Your task to perform on an android device: Find coffee shops on Maps Image 0: 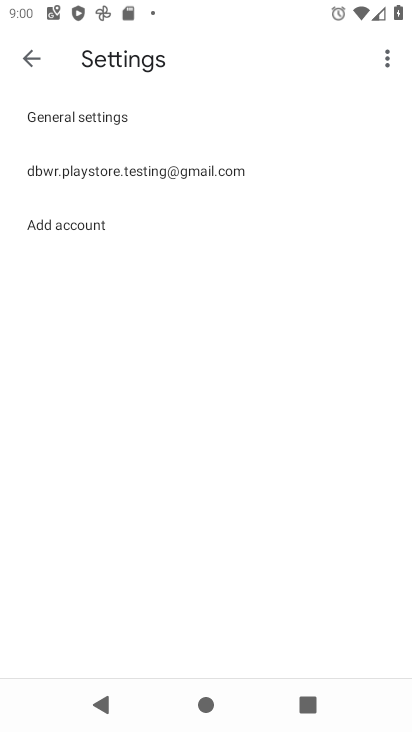
Step 0: press home button
Your task to perform on an android device: Find coffee shops on Maps Image 1: 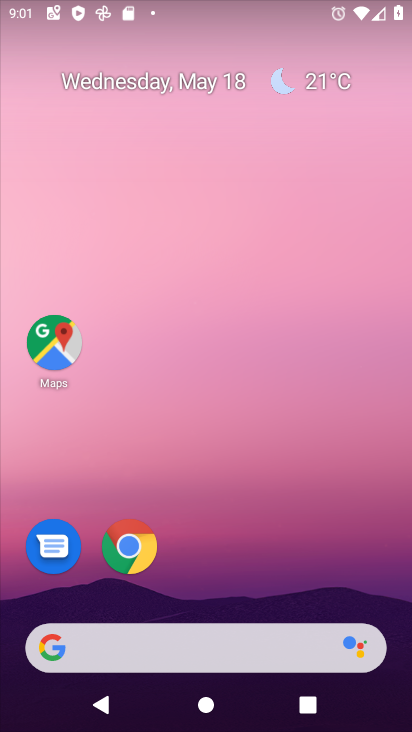
Step 1: click (69, 338)
Your task to perform on an android device: Find coffee shops on Maps Image 2: 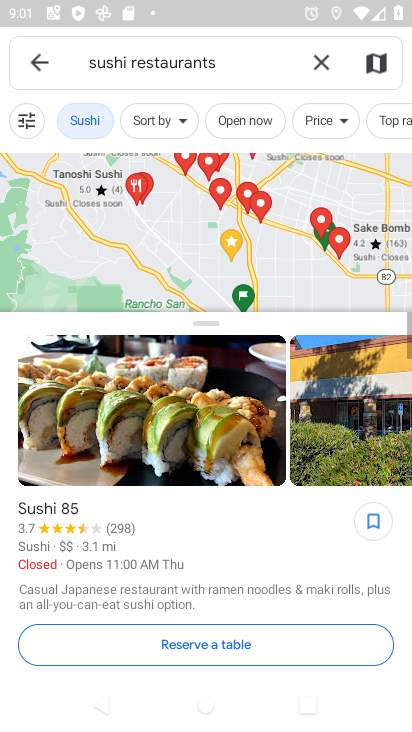
Step 2: click (316, 68)
Your task to perform on an android device: Find coffee shops on Maps Image 3: 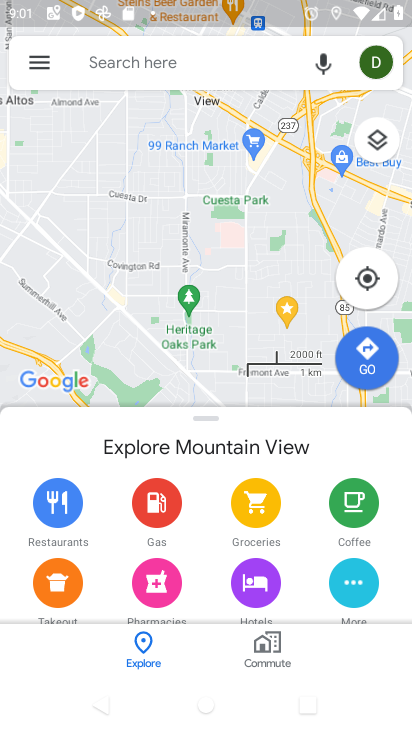
Step 3: click (154, 51)
Your task to perform on an android device: Find coffee shops on Maps Image 4: 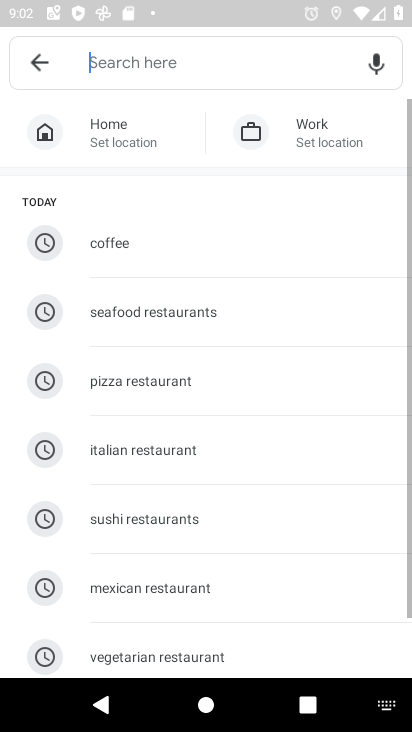
Step 4: click (182, 265)
Your task to perform on an android device: Find coffee shops on Maps Image 5: 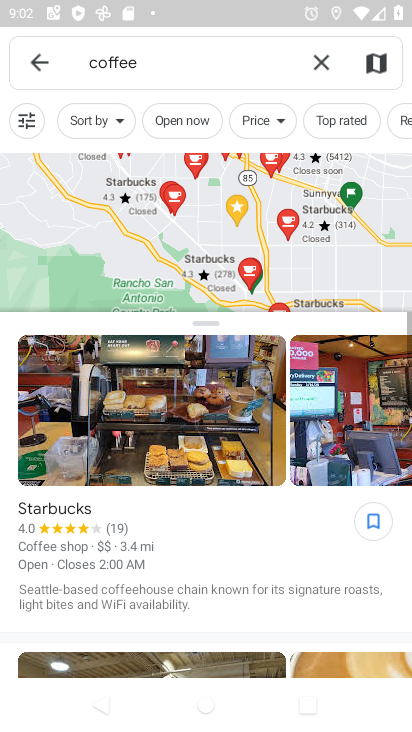
Step 5: task complete